Your task to perform on an android device: open a bookmark in the chrome app Image 0: 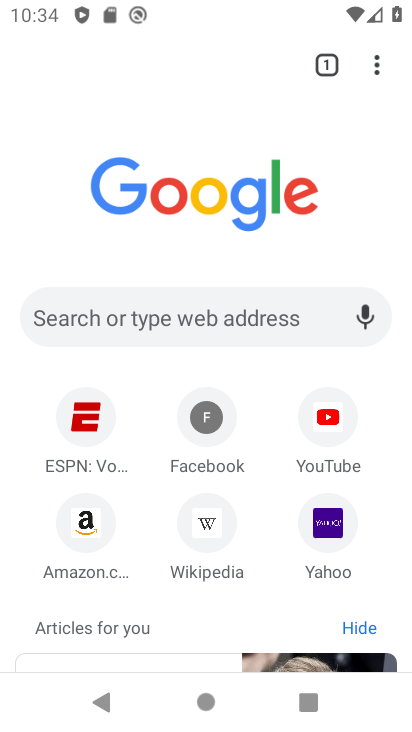
Step 0: click (378, 57)
Your task to perform on an android device: open a bookmark in the chrome app Image 1: 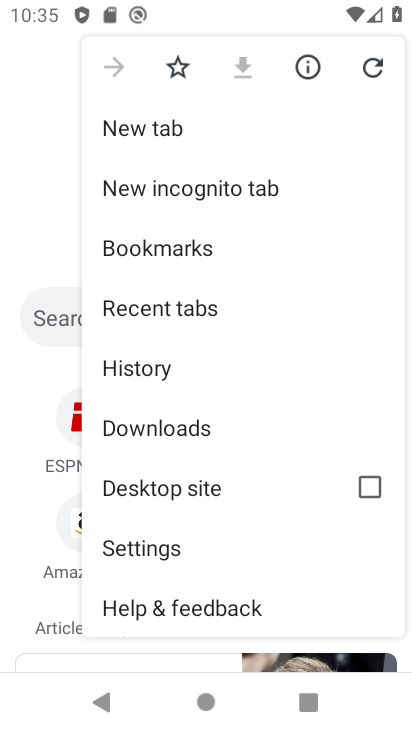
Step 1: click (186, 252)
Your task to perform on an android device: open a bookmark in the chrome app Image 2: 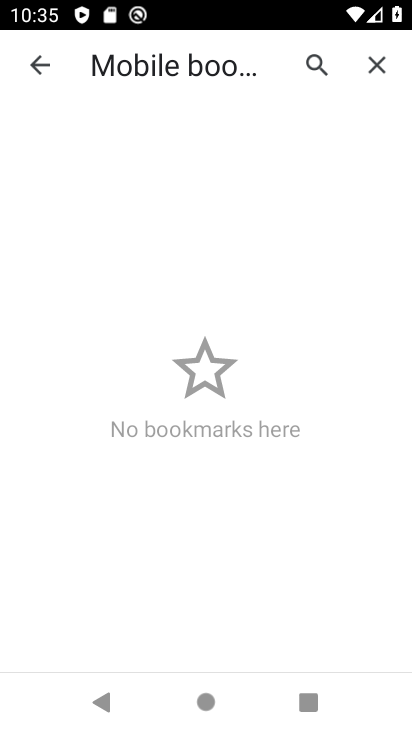
Step 2: task complete